Your task to perform on an android device: turn on showing notifications on the lock screen Image 0: 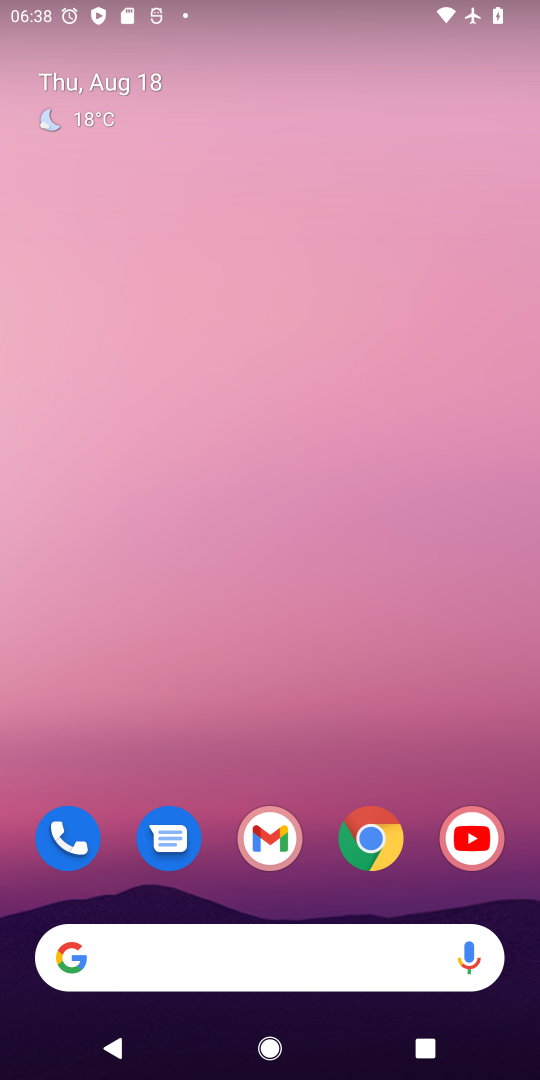
Step 0: press home button
Your task to perform on an android device: turn on showing notifications on the lock screen Image 1: 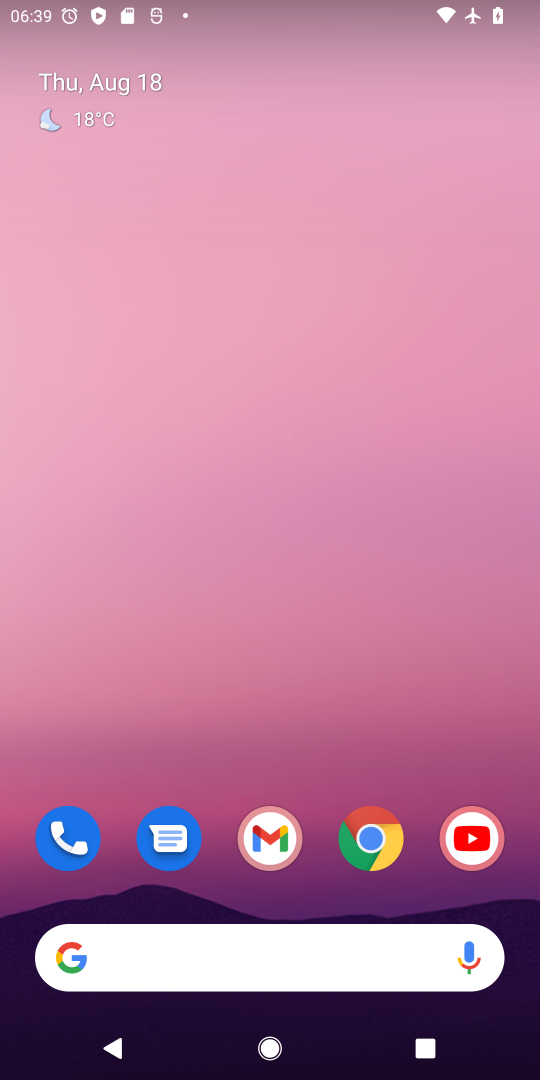
Step 1: drag from (229, 880) to (239, 7)
Your task to perform on an android device: turn on showing notifications on the lock screen Image 2: 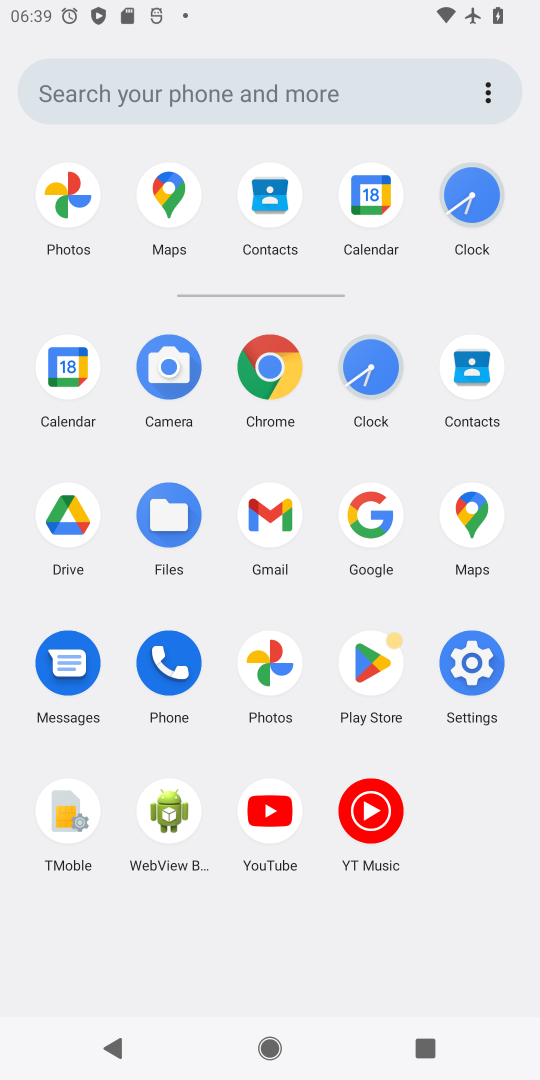
Step 2: click (467, 668)
Your task to perform on an android device: turn on showing notifications on the lock screen Image 3: 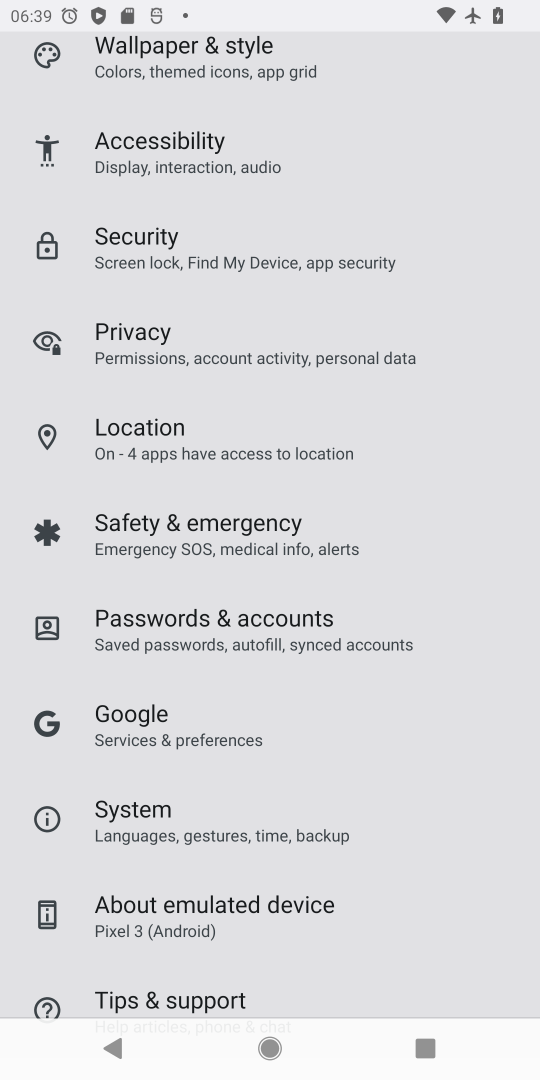
Step 3: drag from (360, 222) to (320, 1072)
Your task to perform on an android device: turn on showing notifications on the lock screen Image 4: 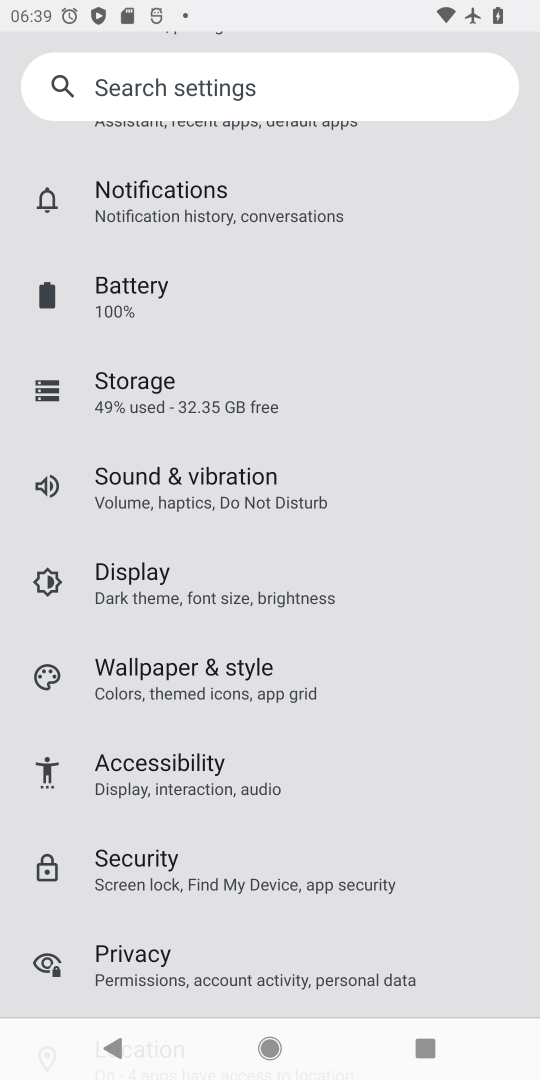
Step 4: click (126, 189)
Your task to perform on an android device: turn on showing notifications on the lock screen Image 5: 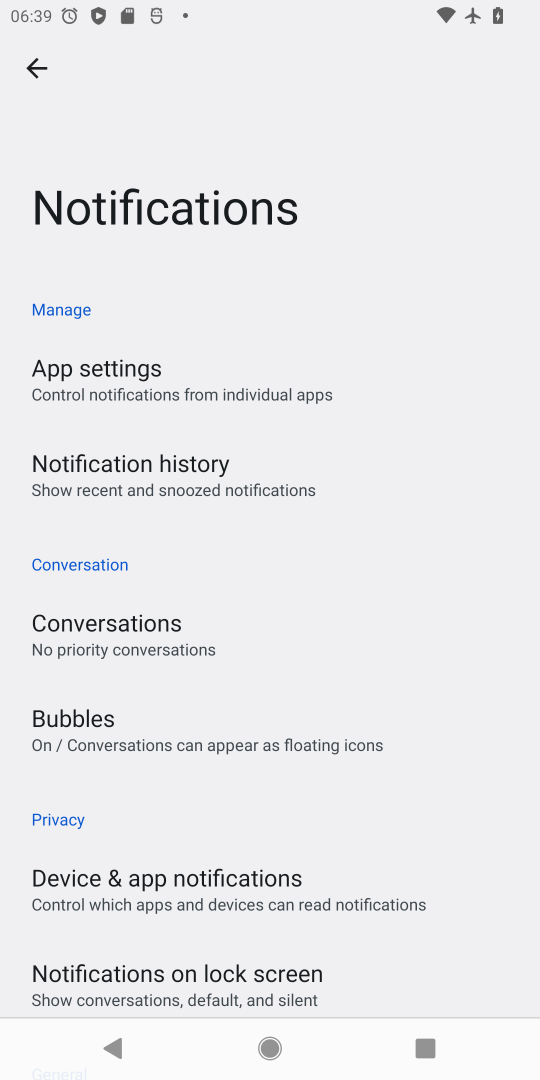
Step 5: drag from (459, 976) to (490, 257)
Your task to perform on an android device: turn on showing notifications on the lock screen Image 6: 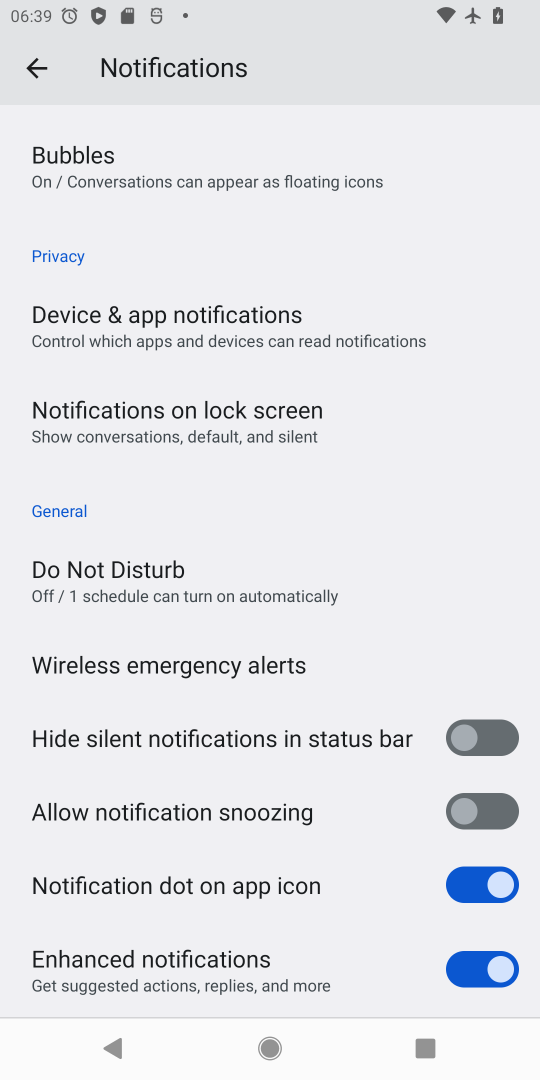
Step 6: click (182, 413)
Your task to perform on an android device: turn on showing notifications on the lock screen Image 7: 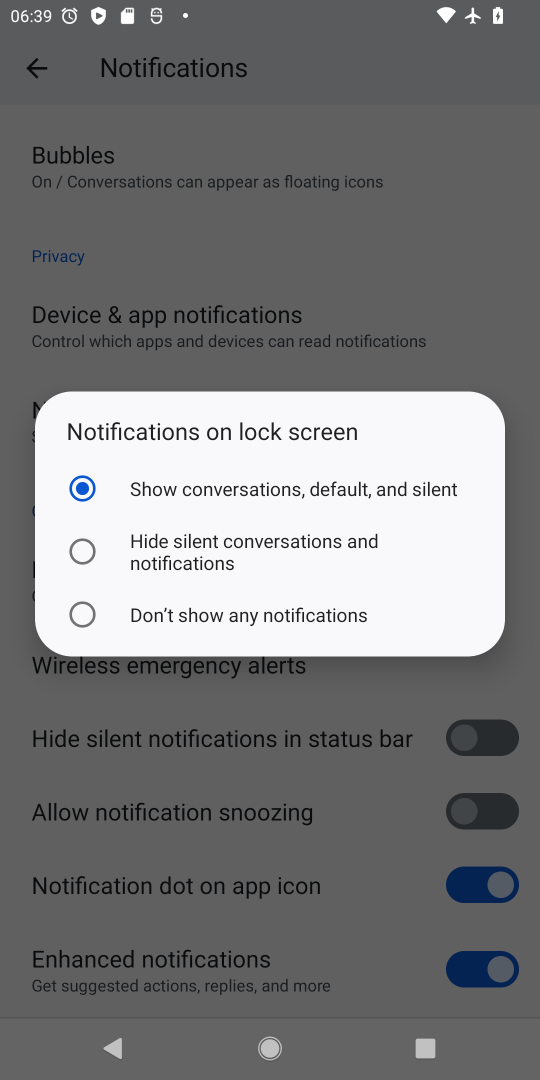
Step 7: task complete